Your task to perform on an android device: turn off javascript in the chrome app Image 0: 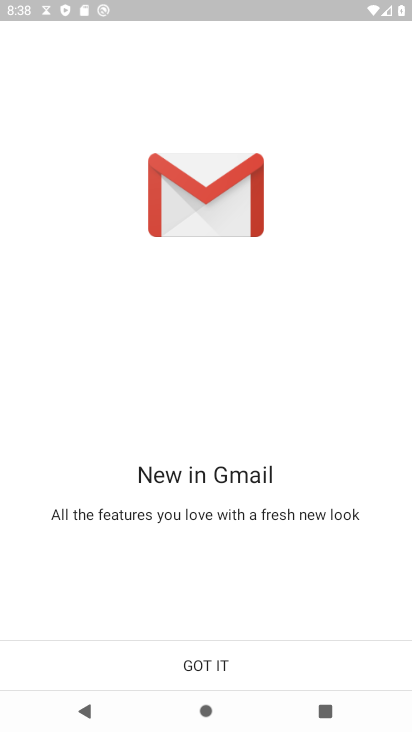
Step 0: drag from (196, 639) to (405, 485)
Your task to perform on an android device: turn off javascript in the chrome app Image 1: 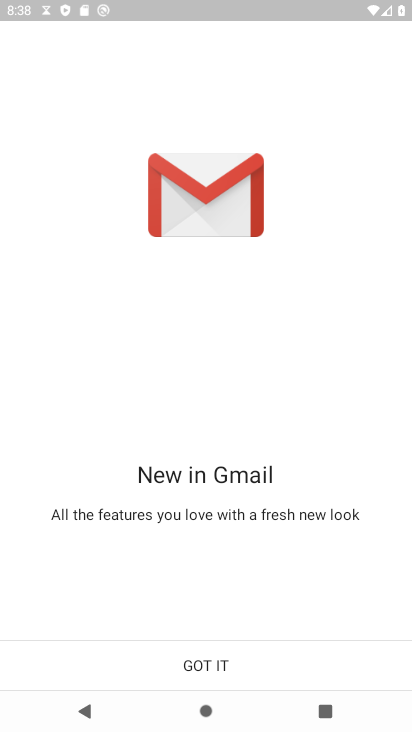
Step 1: press home button
Your task to perform on an android device: turn off javascript in the chrome app Image 2: 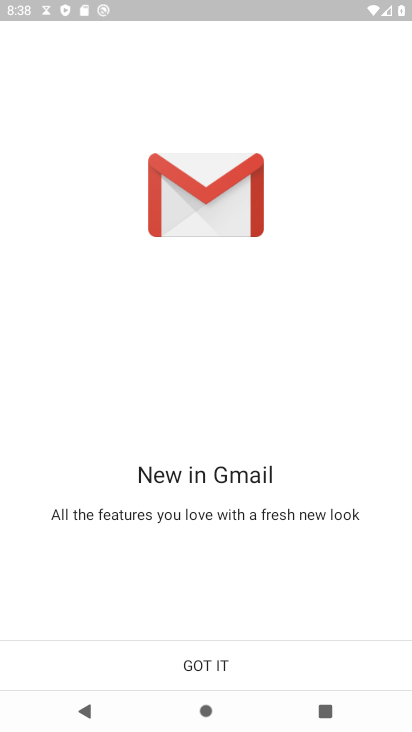
Step 2: drag from (405, 485) to (384, 442)
Your task to perform on an android device: turn off javascript in the chrome app Image 3: 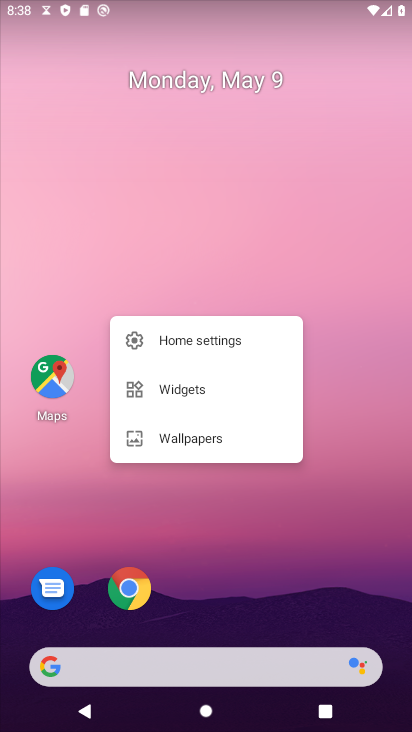
Step 3: click (132, 586)
Your task to perform on an android device: turn off javascript in the chrome app Image 4: 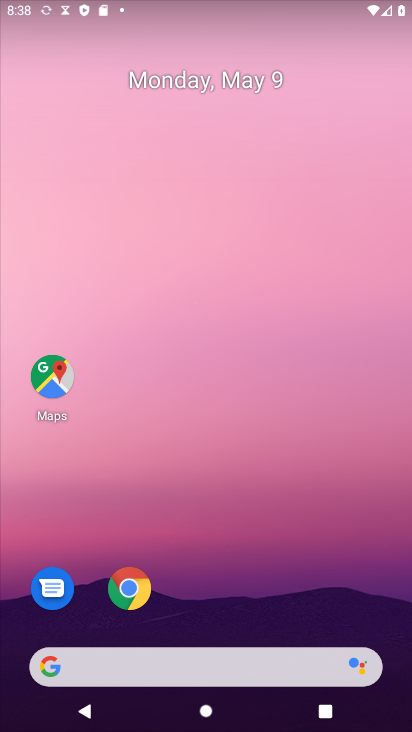
Step 4: click (132, 586)
Your task to perform on an android device: turn off javascript in the chrome app Image 5: 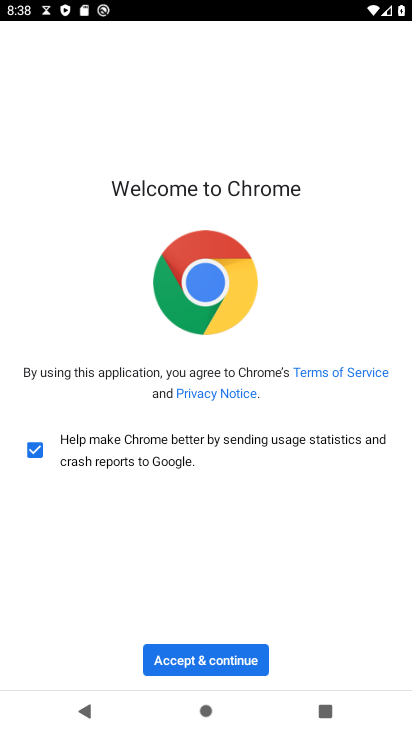
Step 5: click (233, 647)
Your task to perform on an android device: turn off javascript in the chrome app Image 6: 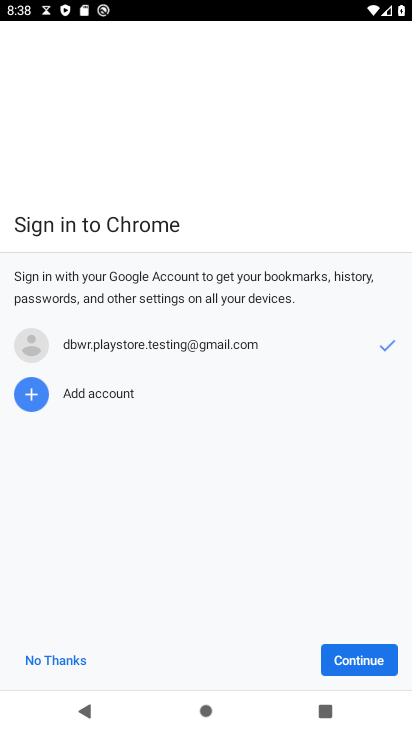
Step 6: click (348, 674)
Your task to perform on an android device: turn off javascript in the chrome app Image 7: 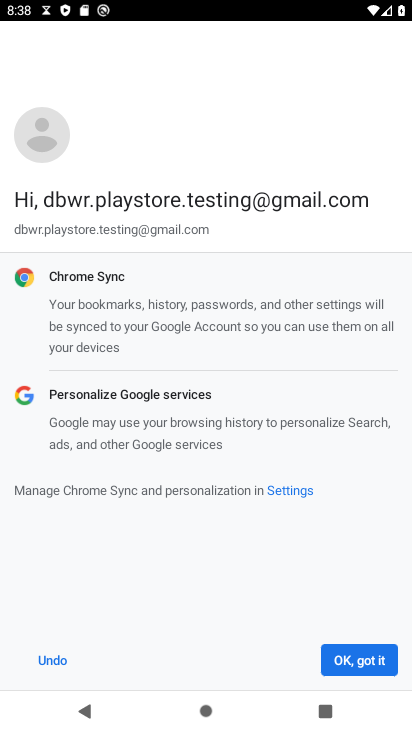
Step 7: click (348, 674)
Your task to perform on an android device: turn off javascript in the chrome app Image 8: 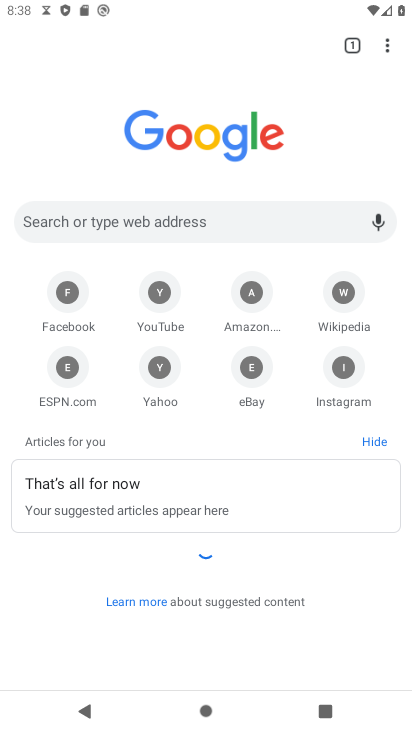
Step 8: click (386, 44)
Your task to perform on an android device: turn off javascript in the chrome app Image 9: 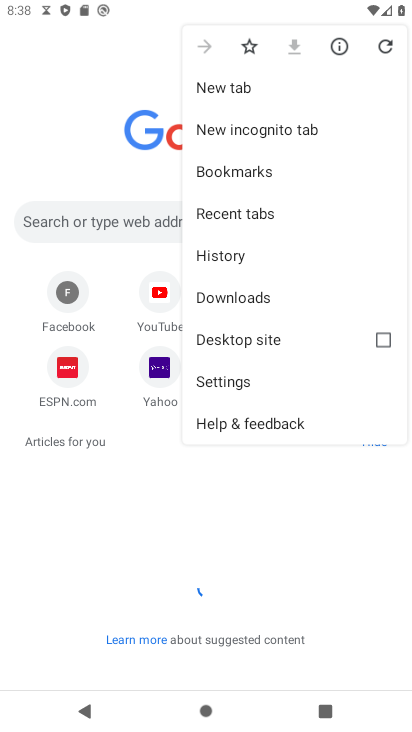
Step 9: click (233, 385)
Your task to perform on an android device: turn off javascript in the chrome app Image 10: 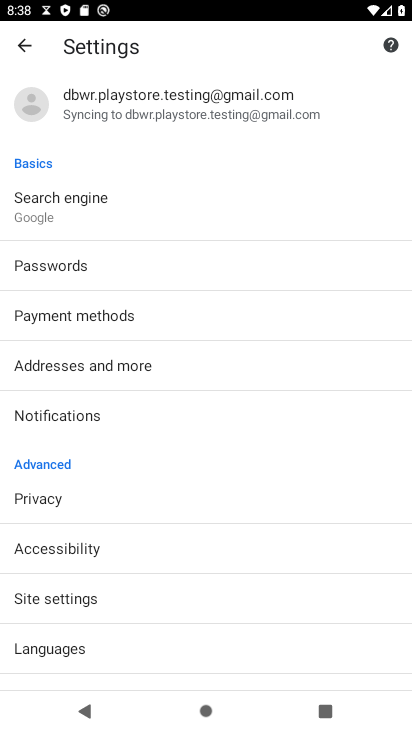
Step 10: drag from (148, 566) to (225, 130)
Your task to perform on an android device: turn off javascript in the chrome app Image 11: 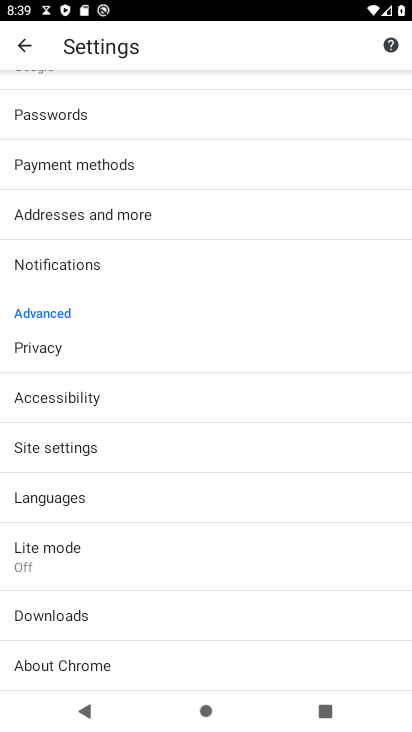
Step 11: click (119, 447)
Your task to perform on an android device: turn off javascript in the chrome app Image 12: 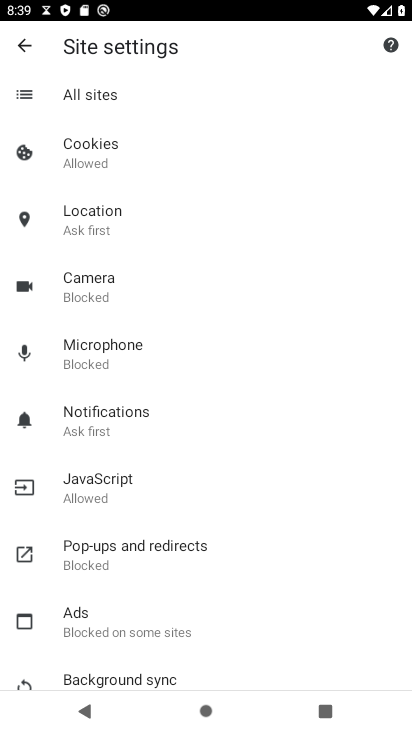
Step 12: click (133, 485)
Your task to perform on an android device: turn off javascript in the chrome app Image 13: 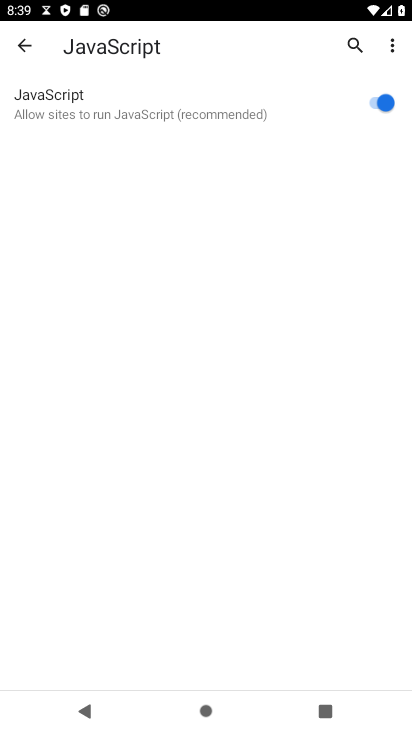
Step 13: task complete